Your task to perform on an android device: Go to sound settings Image 0: 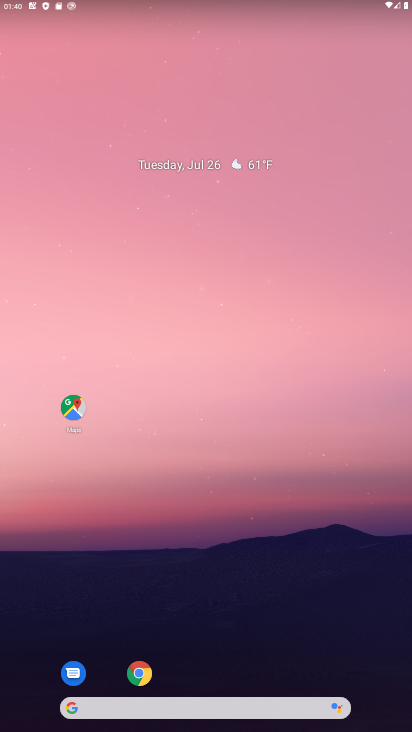
Step 0: drag from (214, 677) to (207, 144)
Your task to perform on an android device: Go to sound settings Image 1: 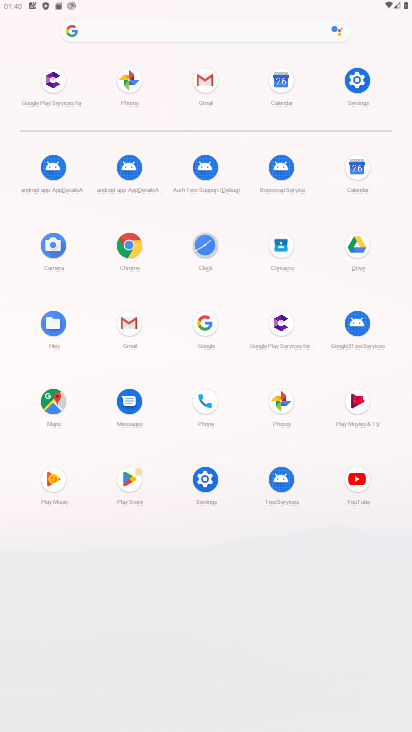
Step 1: click (362, 69)
Your task to perform on an android device: Go to sound settings Image 2: 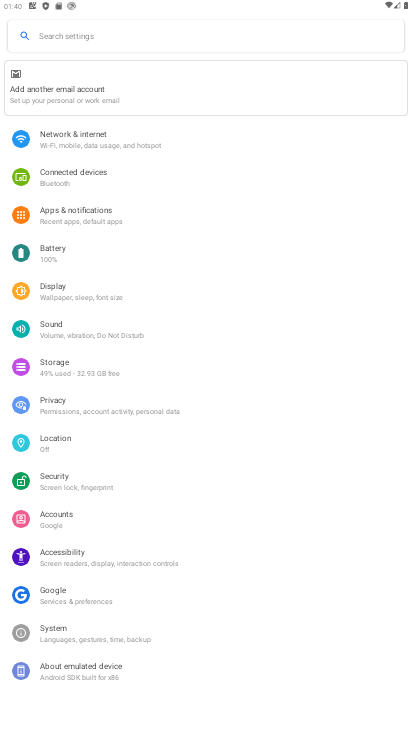
Step 2: click (51, 324)
Your task to perform on an android device: Go to sound settings Image 3: 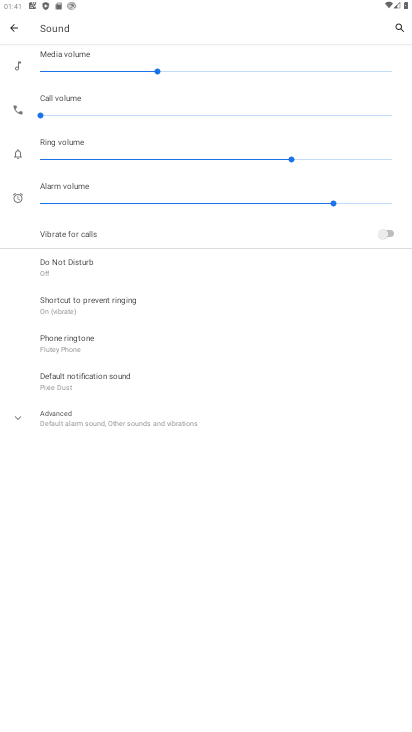
Step 3: task complete